Your task to perform on an android device: Open settings on Google Maps Image 0: 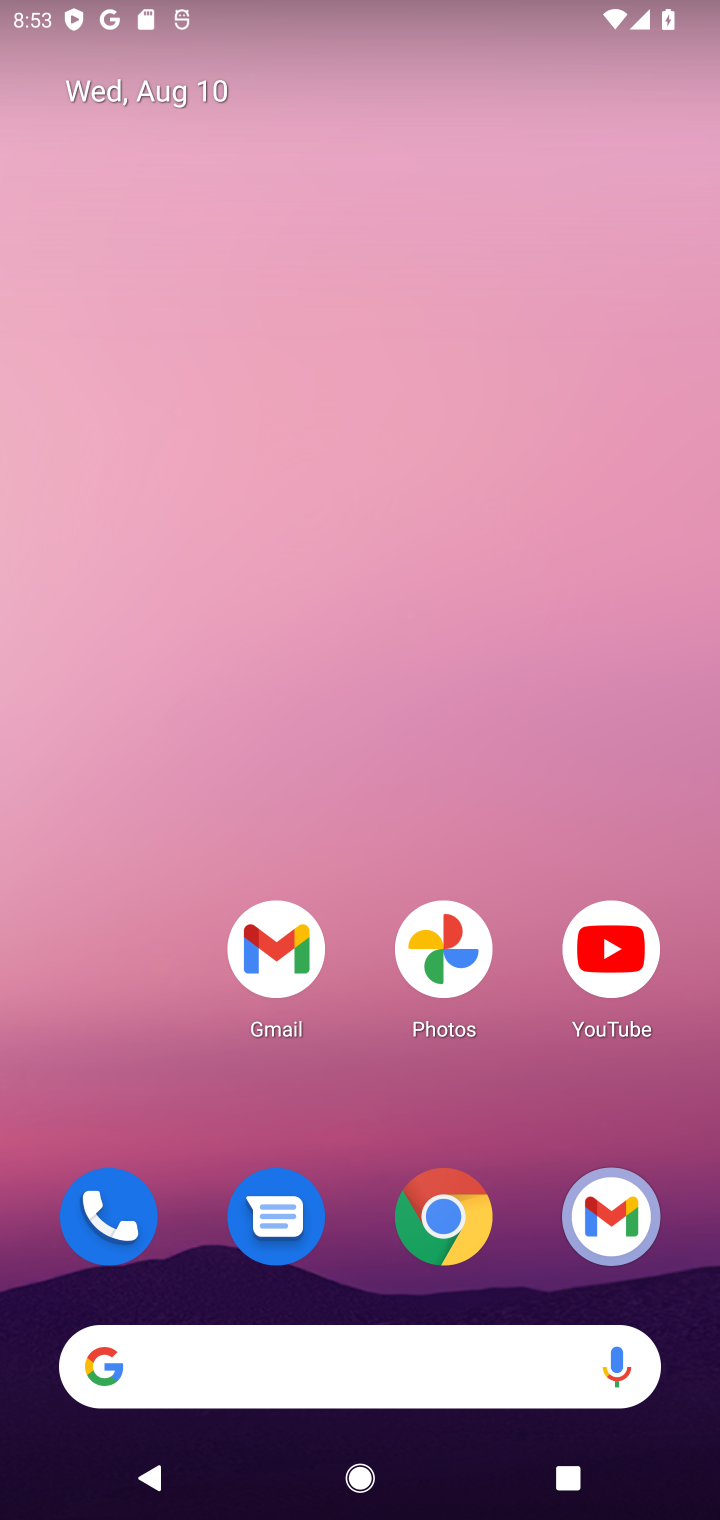
Step 0: drag from (26, 1280) to (418, 198)
Your task to perform on an android device: Open settings on Google Maps Image 1: 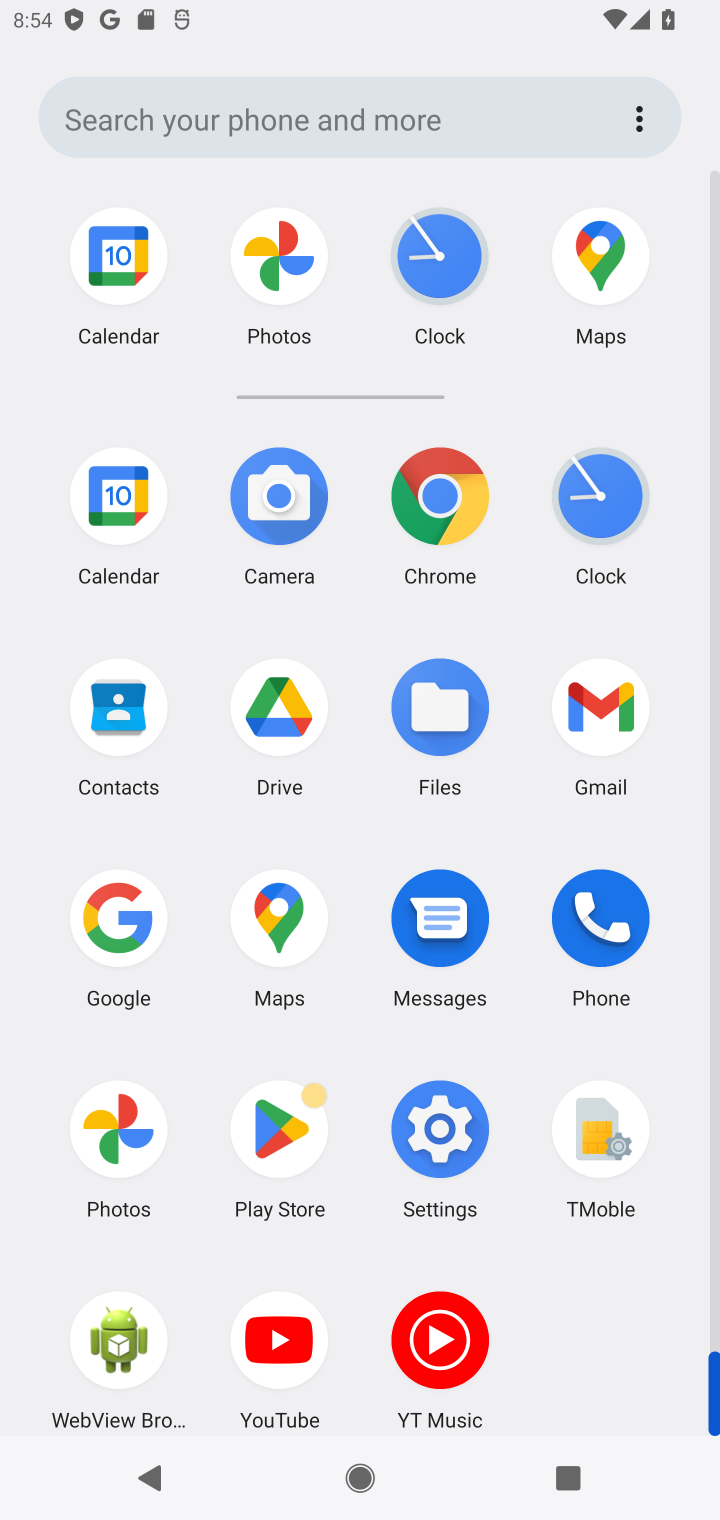
Step 1: click (268, 924)
Your task to perform on an android device: Open settings on Google Maps Image 2: 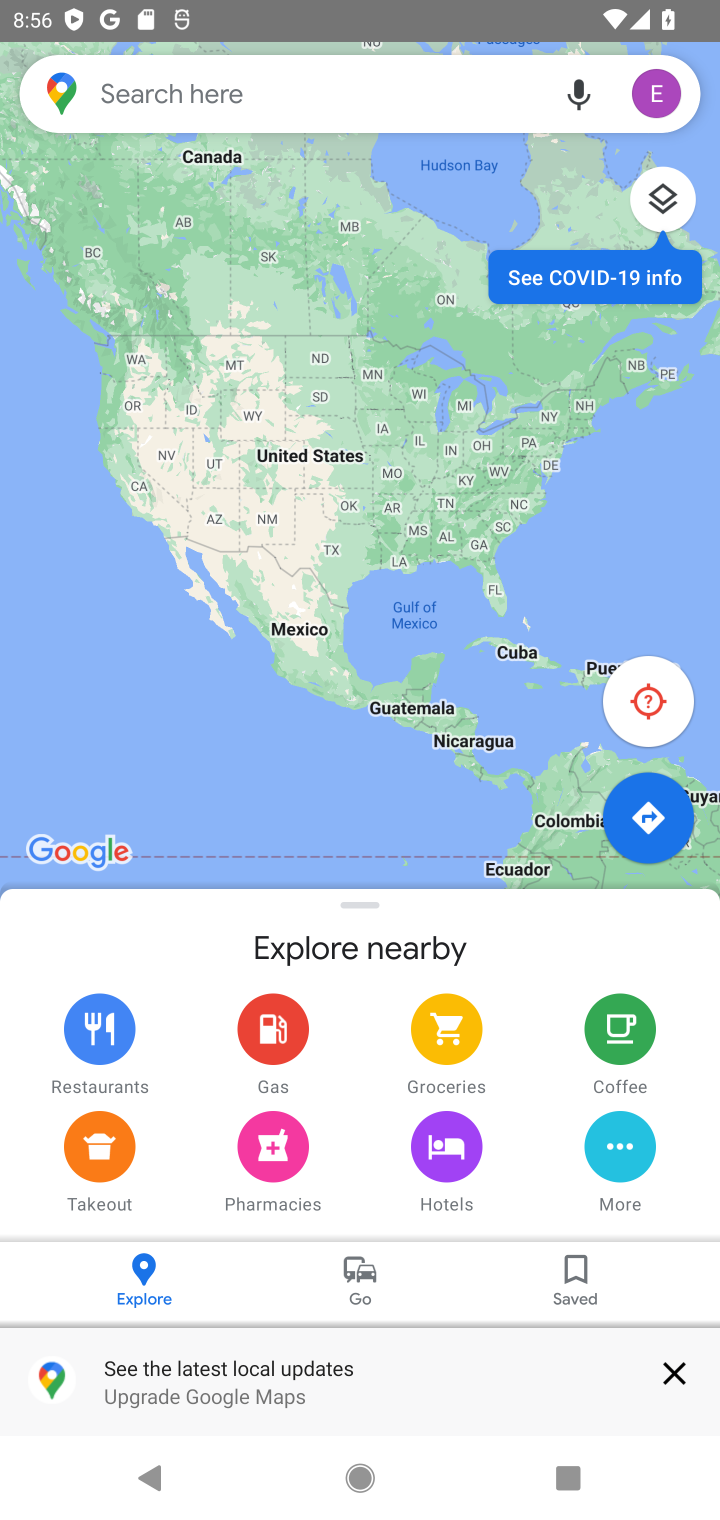
Step 2: task complete